Your task to perform on an android device: Go to location settings Image 0: 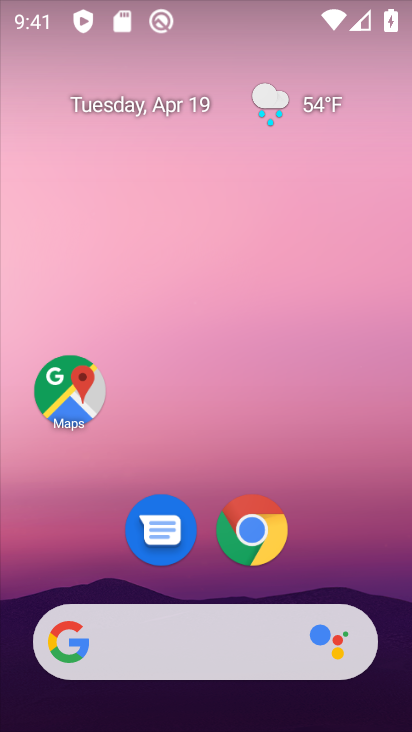
Step 0: drag from (202, 487) to (192, 1)
Your task to perform on an android device: Go to location settings Image 1: 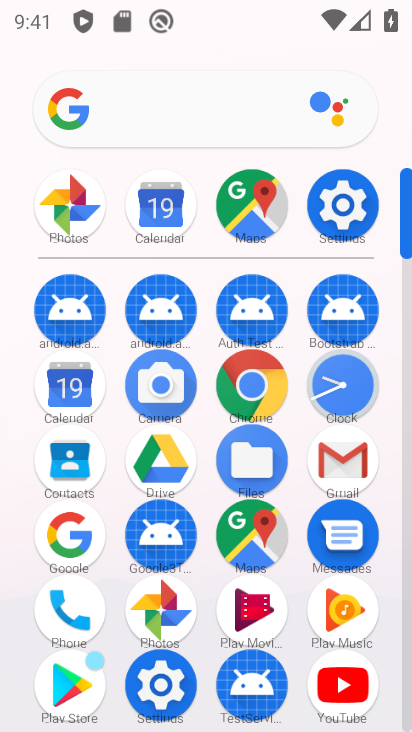
Step 1: click (341, 203)
Your task to perform on an android device: Go to location settings Image 2: 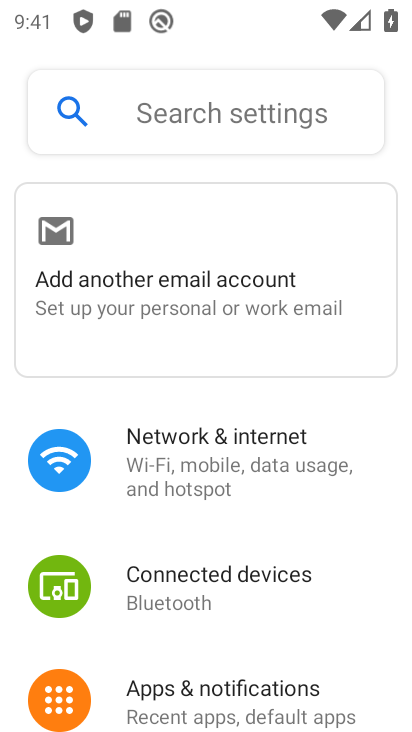
Step 2: drag from (266, 588) to (264, 21)
Your task to perform on an android device: Go to location settings Image 3: 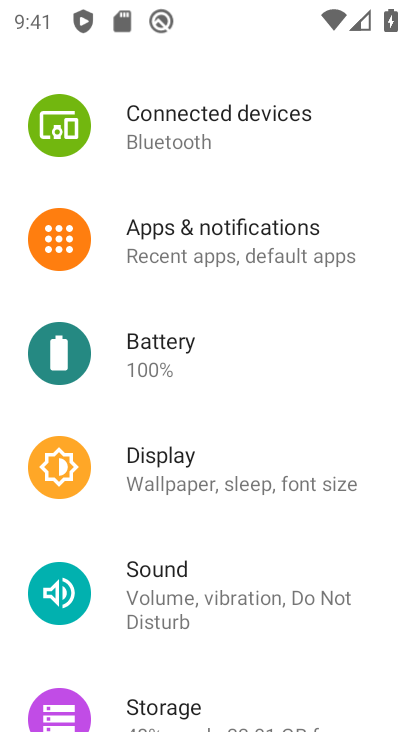
Step 3: drag from (229, 580) to (244, 129)
Your task to perform on an android device: Go to location settings Image 4: 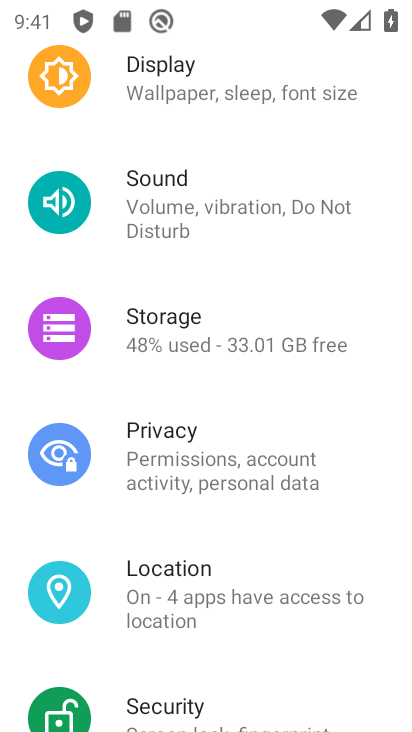
Step 4: click (151, 595)
Your task to perform on an android device: Go to location settings Image 5: 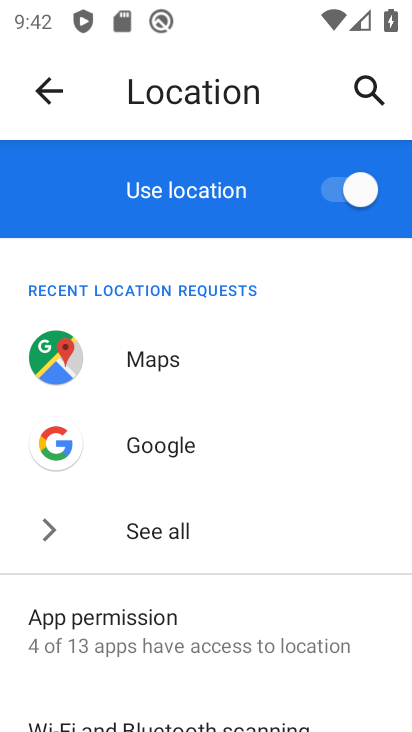
Step 5: task complete